Your task to perform on an android device: Go to Google Image 0: 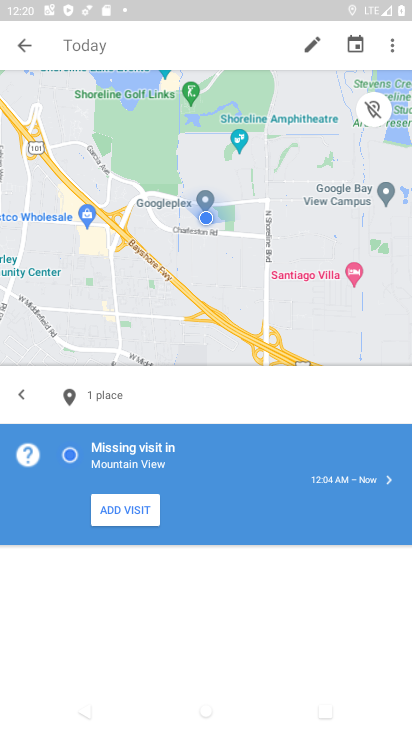
Step 0: press home button
Your task to perform on an android device: Go to Google Image 1: 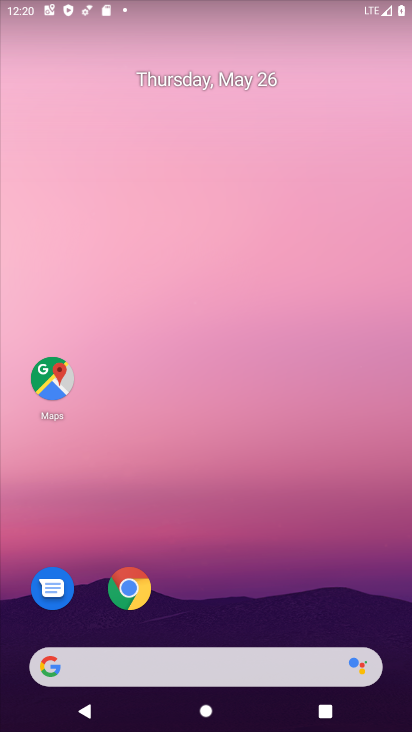
Step 1: click (126, 587)
Your task to perform on an android device: Go to Google Image 2: 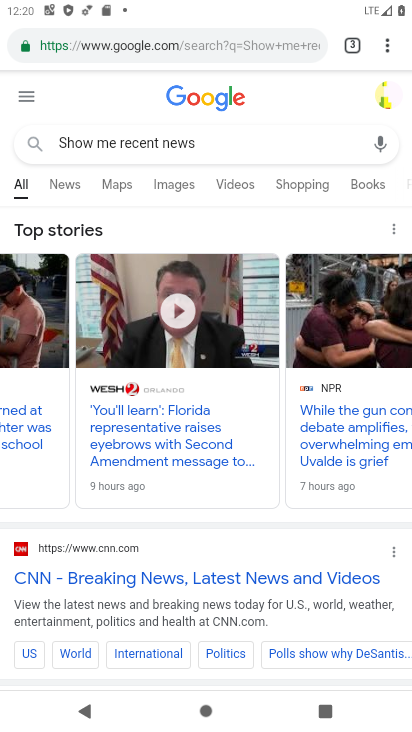
Step 2: click (189, 38)
Your task to perform on an android device: Go to Google Image 3: 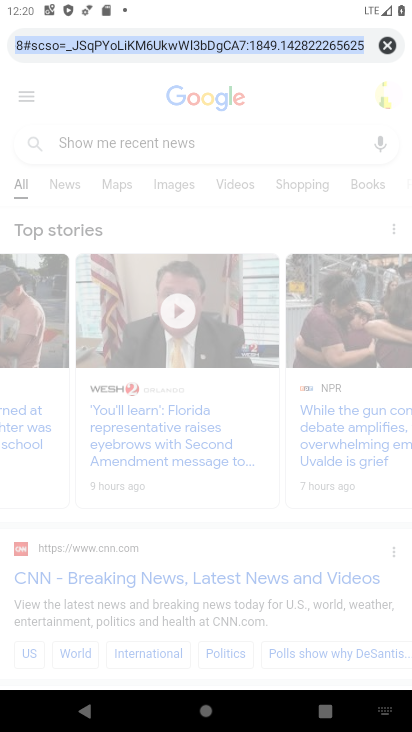
Step 3: click (389, 42)
Your task to perform on an android device: Go to Google Image 4: 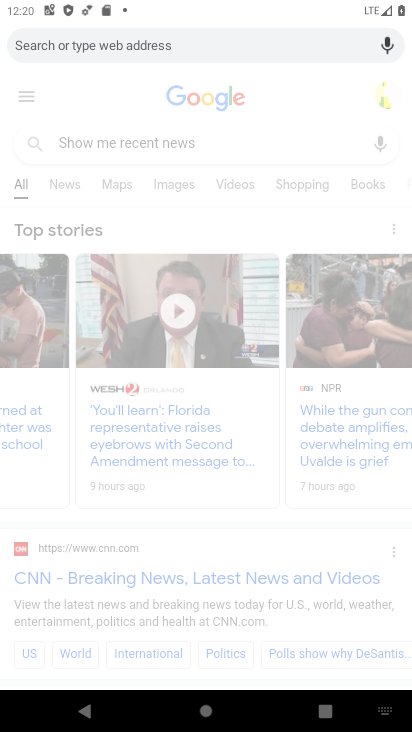
Step 4: click (172, 41)
Your task to perform on an android device: Go to Google Image 5: 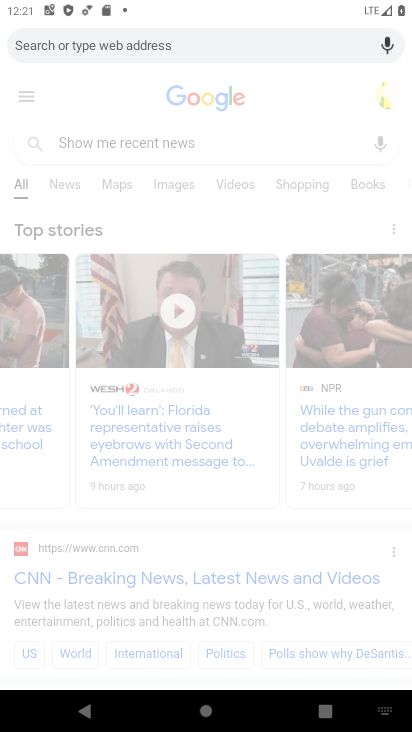
Step 5: type " Google"
Your task to perform on an android device: Go to Google Image 6: 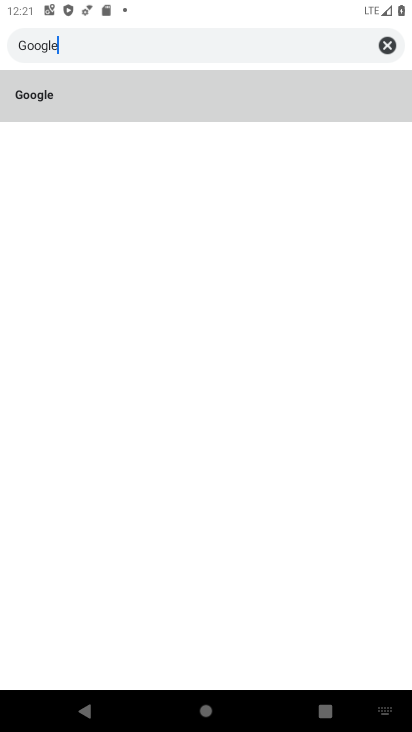
Step 6: type ""
Your task to perform on an android device: Go to Google Image 7: 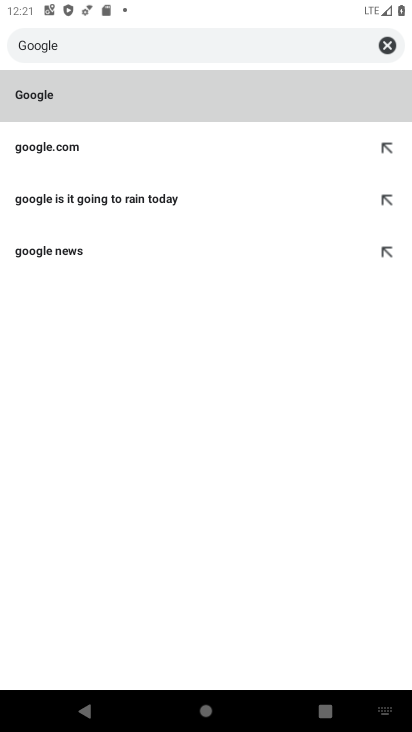
Step 7: click (96, 97)
Your task to perform on an android device: Go to Google Image 8: 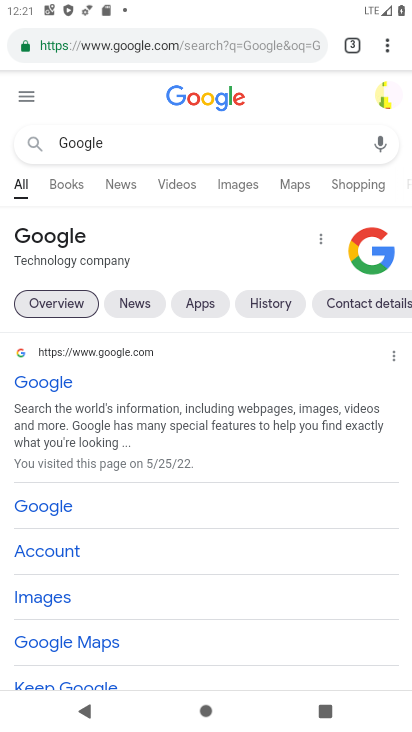
Step 8: click (31, 381)
Your task to perform on an android device: Go to Google Image 9: 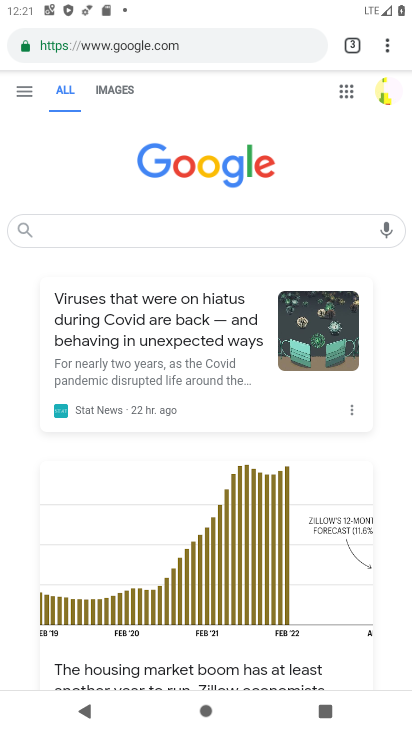
Step 9: task complete